Your task to perform on an android device: turn notification dots on Image 0: 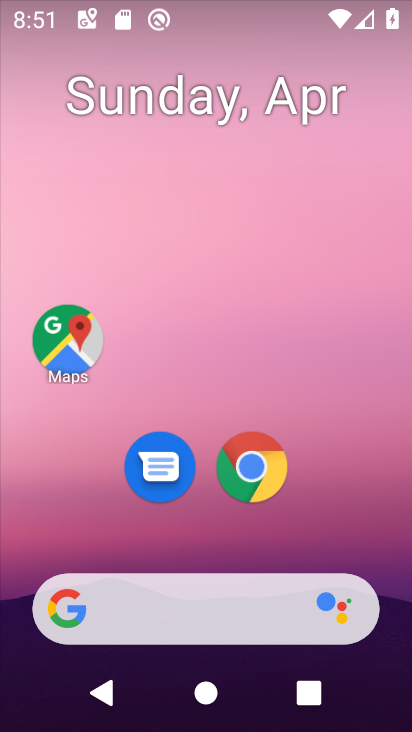
Step 0: drag from (333, 527) to (411, 40)
Your task to perform on an android device: turn notification dots on Image 1: 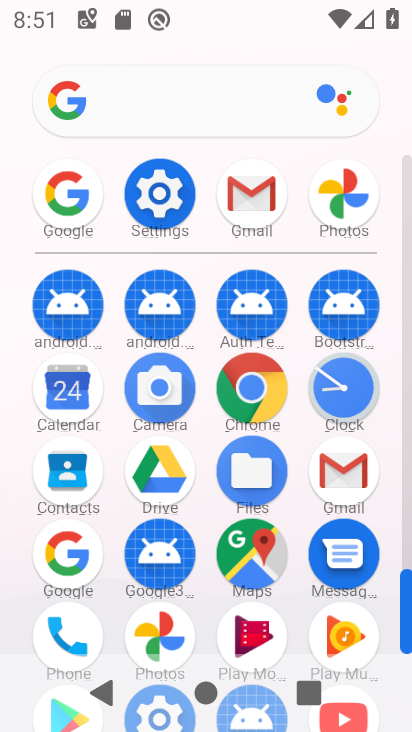
Step 1: click (150, 197)
Your task to perform on an android device: turn notification dots on Image 2: 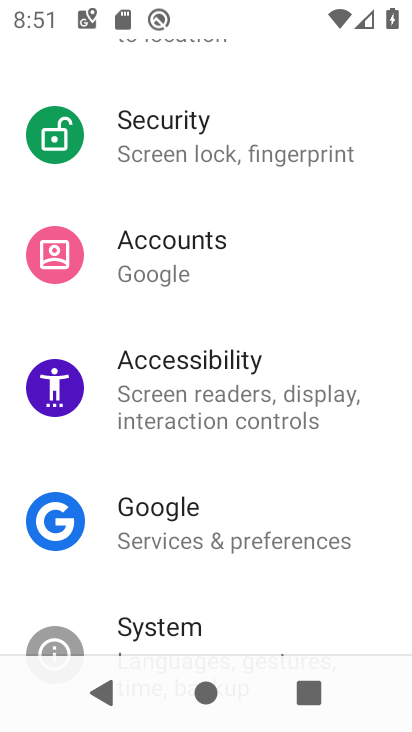
Step 2: drag from (227, 329) to (268, 417)
Your task to perform on an android device: turn notification dots on Image 3: 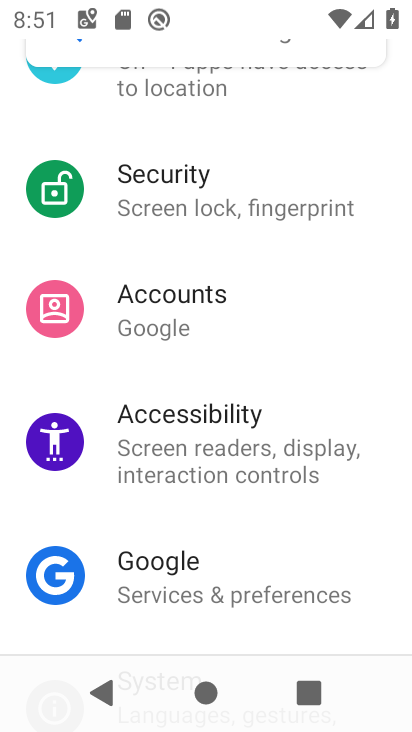
Step 3: drag from (306, 291) to (331, 370)
Your task to perform on an android device: turn notification dots on Image 4: 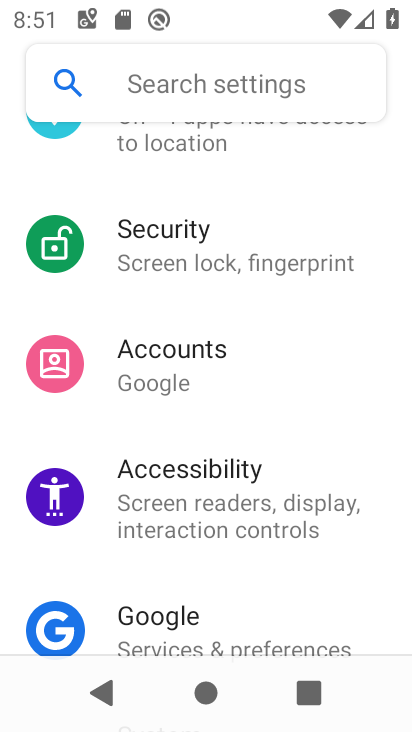
Step 4: drag from (322, 294) to (356, 385)
Your task to perform on an android device: turn notification dots on Image 5: 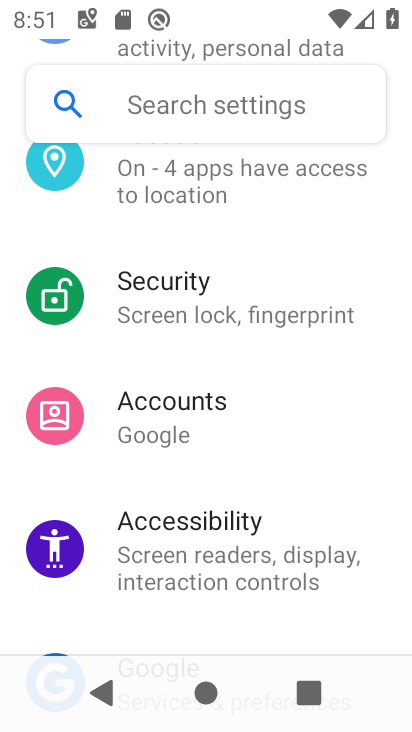
Step 5: drag from (337, 300) to (362, 385)
Your task to perform on an android device: turn notification dots on Image 6: 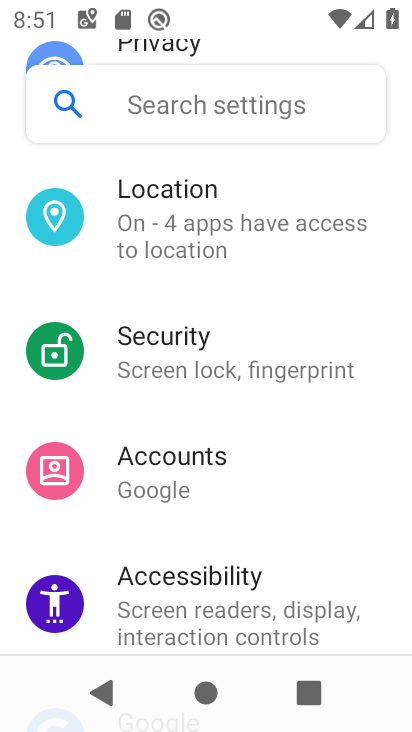
Step 6: drag from (356, 312) to (390, 398)
Your task to perform on an android device: turn notification dots on Image 7: 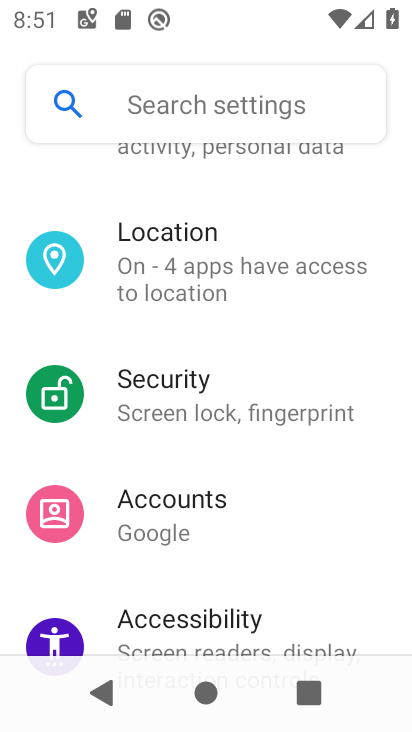
Step 7: drag from (354, 306) to (370, 371)
Your task to perform on an android device: turn notification dots on Image 8: 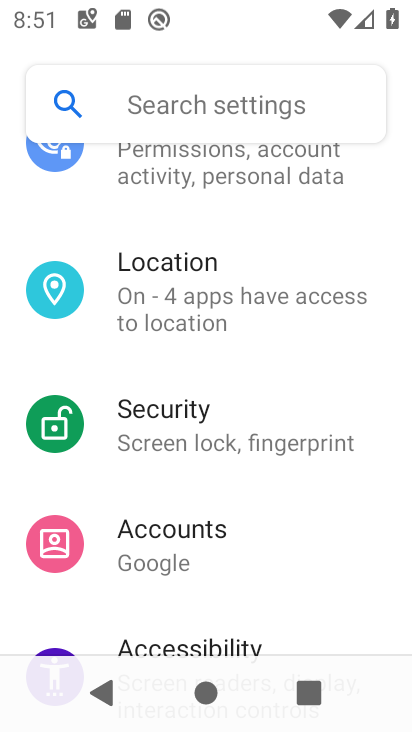
Step 8: drag from (361, 295) to (391, 378)
Your task to perform on an android device: turn notification dots on Image 9: 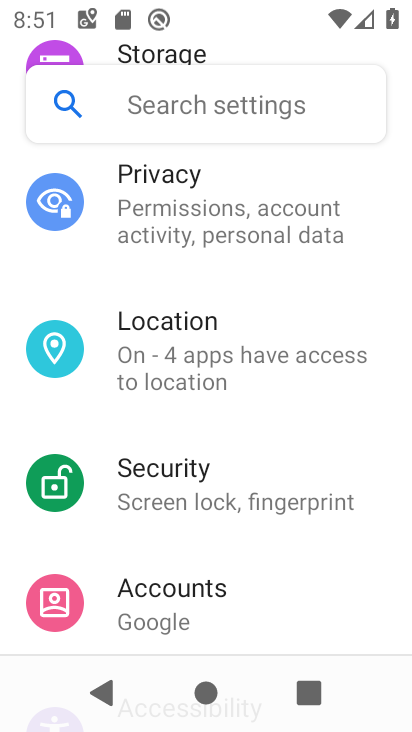
Step 9: drag from (371, 299) to (389, 363)
Your task to perform on an android device: turn notification dots on Image 10: 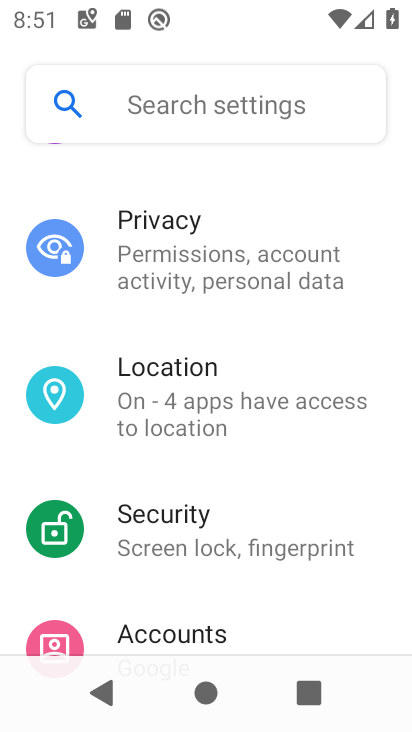
Step 10: drag from (360, 268) to (386, 350)
Your task to perform on an android device: turn notification dots on Image 11: 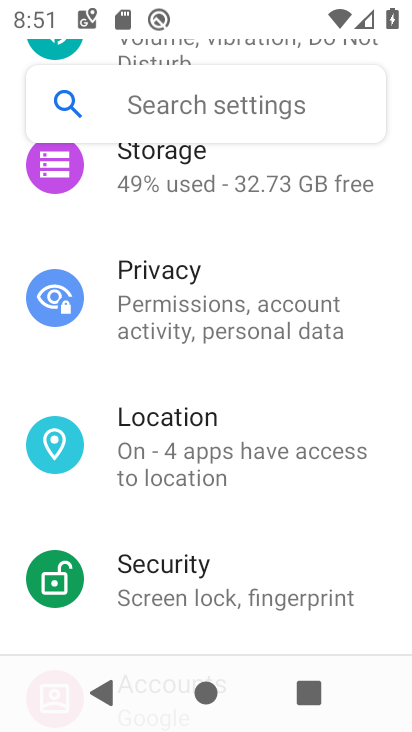
Step 11: drag from (370, 301) to (398, 388)
Your task to perform on an android device: turn notification dots on Image 12: 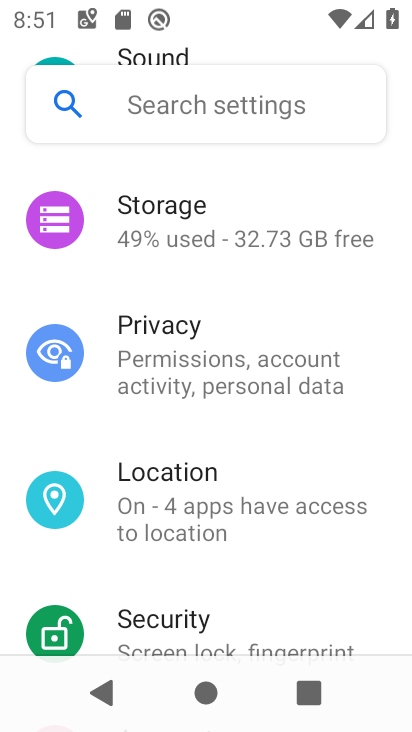
Step 12: drag from (339, 247) to (363, 331)
Your task to perform on an android device: turn notification dots on Image 13: 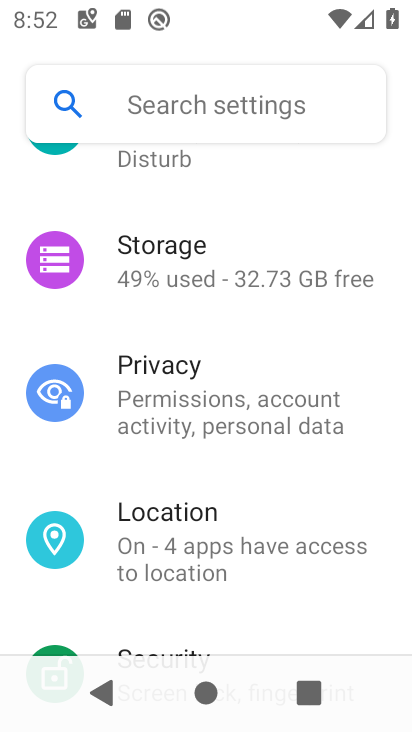
Step 13: drag from (332, 253) to (366, 346)
Your task to perform on an android device: turn notification dots on Image 14: 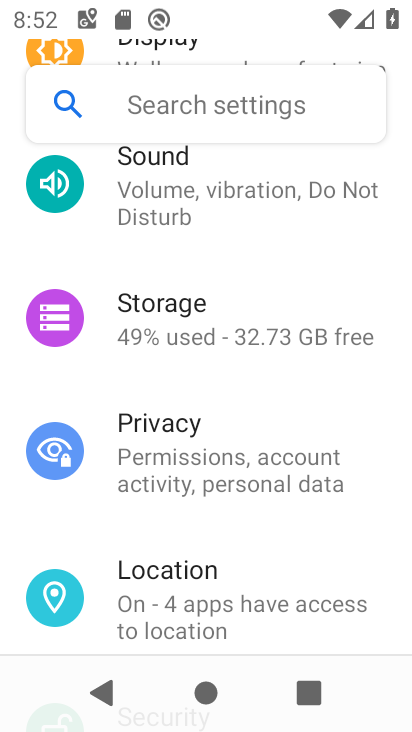
Step 14: drag from (332, 268) to (343, 330)
Your task to perform on an android device: turn notification dots on Image 15: 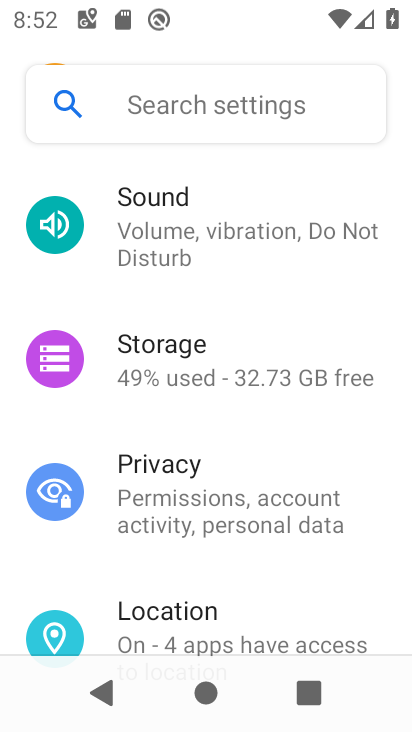
Step 15: drag from (328, 297) to (346, 344)
Your task to perform on an android device: turn notification dots on Image 16: 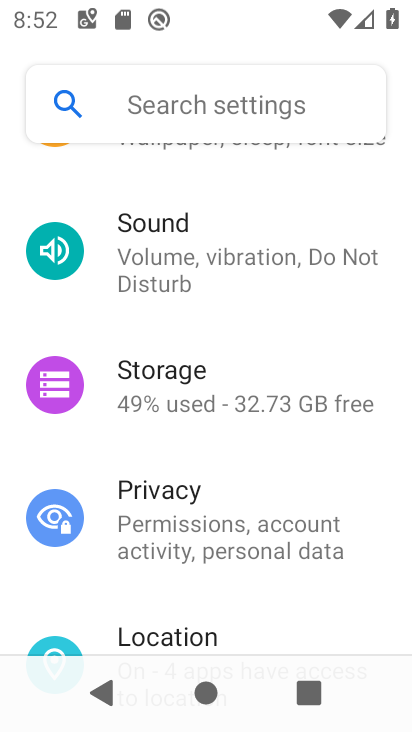
Step 16: drag from (330, 306) to (352, 373)
Your task to perform on an android device: turn notification dots on Image 17: 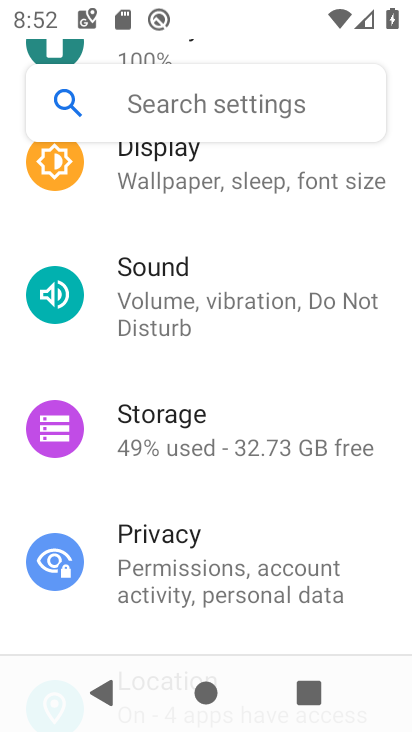
Step 17: drag from (334, 291) to (349, 376)
Your task to perform on an android device: turn notification dots on Image 18: 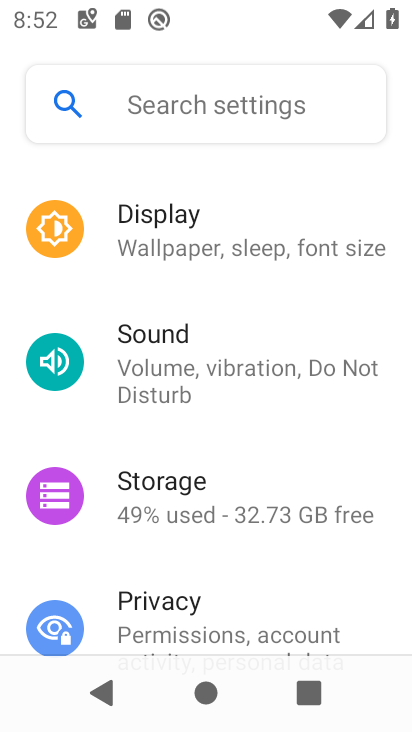
Step 18: drag from (274, 275) to (296, 343)
Your task to perform on an android device: turn notification dots on Image 19: 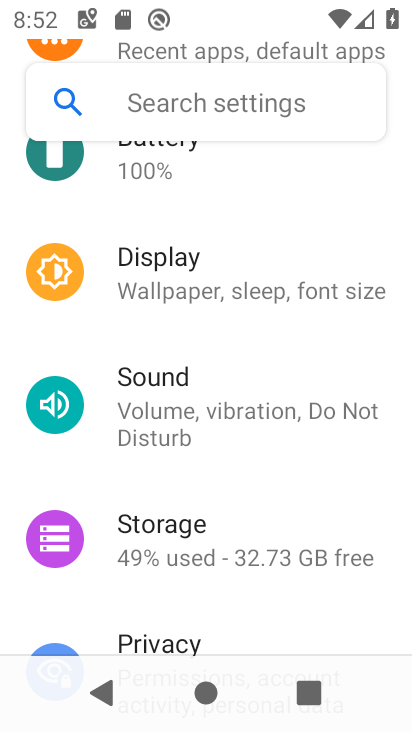
Step 19: drag from (272, 275) to (279, 328)
Your task to perform on an android device: turn notification dots on Image 20: 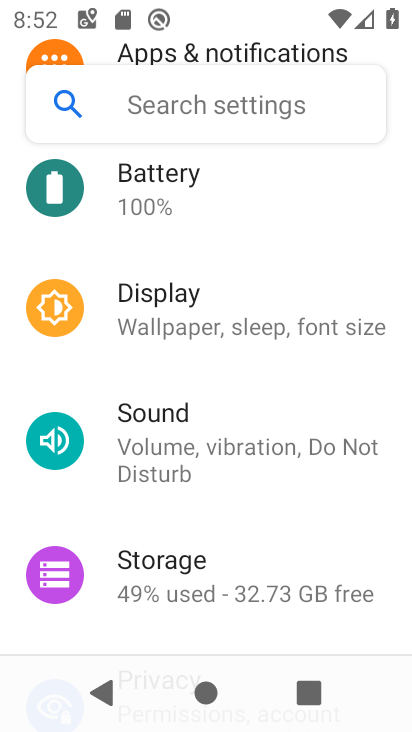
Step 20: drag from (270, 300) to (294, 357)
Your task to perform on an android device: turn notification dots on Image 21: 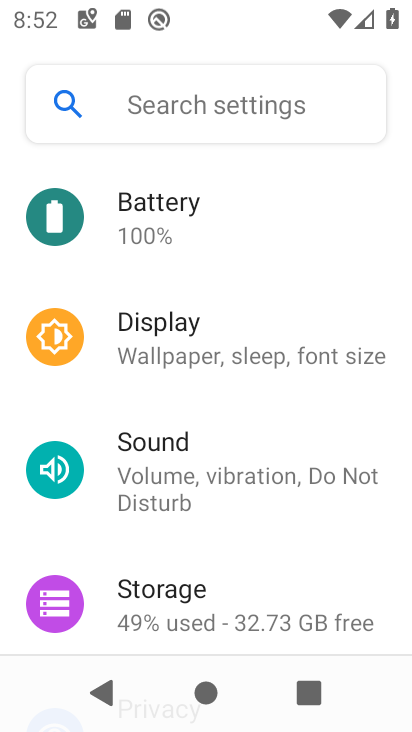
Step 21: drag from (277, 293) to (303, 424)
Your task to perform on an android device: turn notification dots on Image 22: 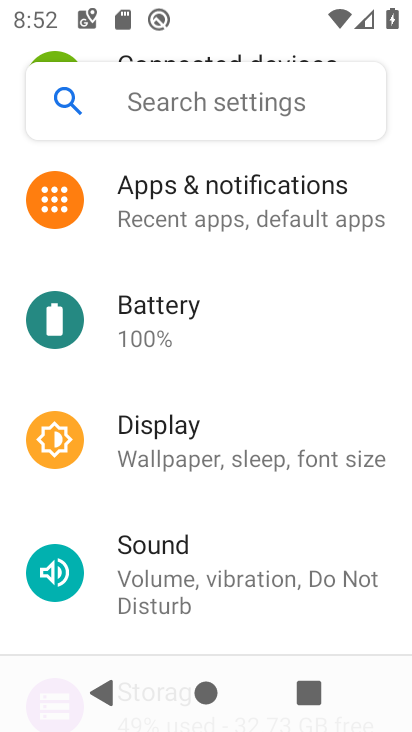
Step 22: click (289, 184)
Your task to perform on an android device: turn notification dots on Image 23: 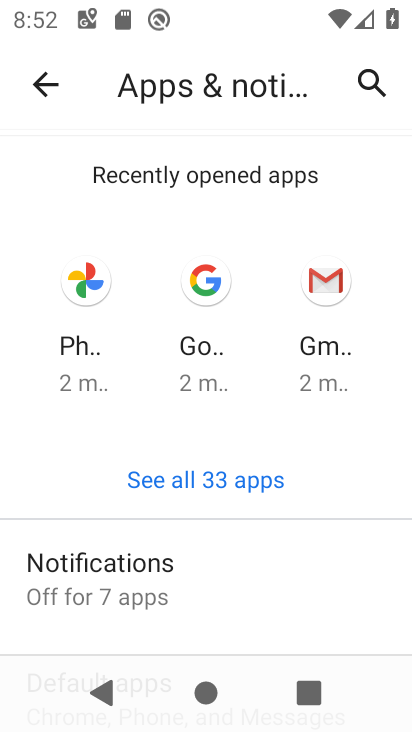
Step 23: drag from (236, 570) to (330, 282)
Your task to perform on an android device: turn notification dots on Image 24: 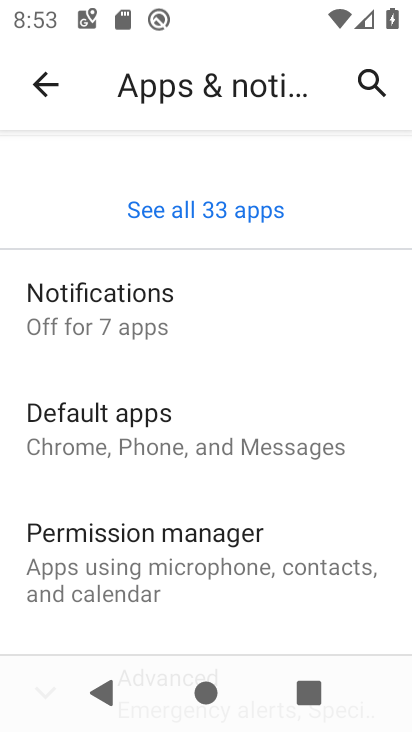
Step 24: click (256, 307)
Your task to perform on an android device: turn notification dots on Image 25: 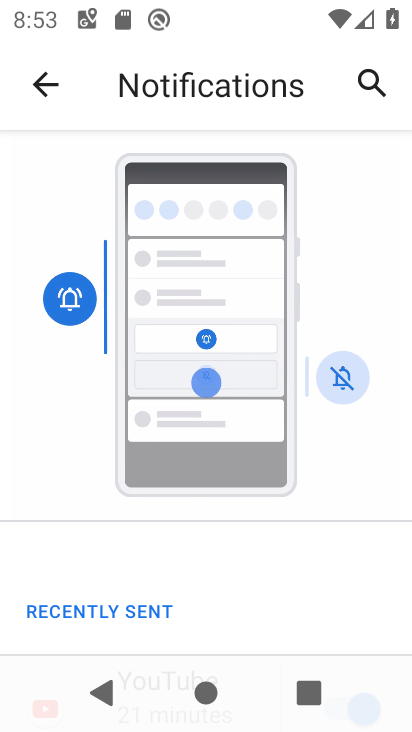
Step 25: drag from (251, 588) to (307, 395)
Your task to perform on an android device: turn notification dots on Image 26: 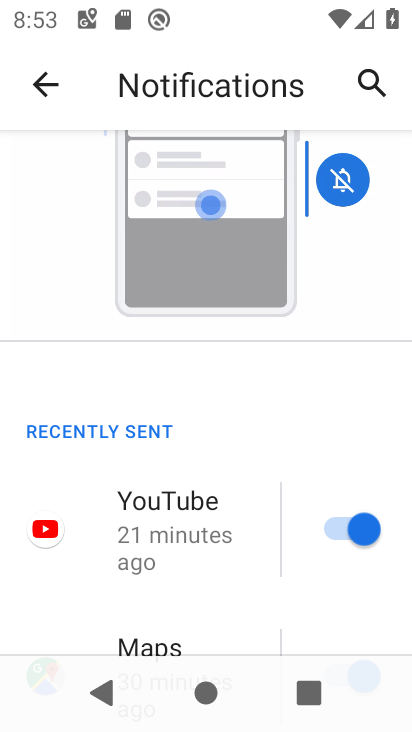
Step 26: drag from (237, 565) to (282, 418)
Your task to perform on an android device: turn notification dots on Image 27: 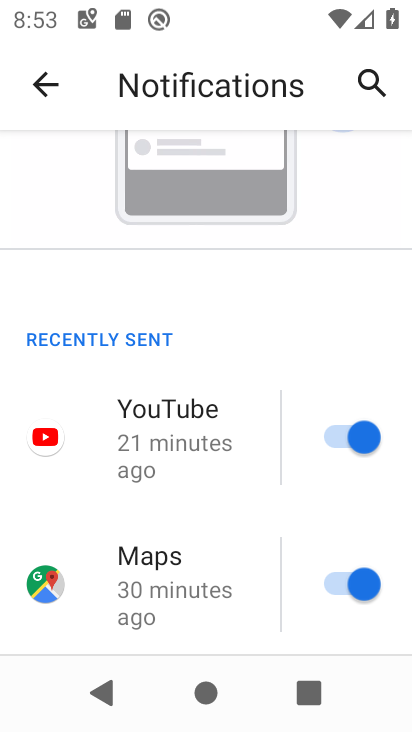
Step 27: drag from (231, 551) to (286, 396)
Your task to perform on an android device: turn notification dots on Image 28: 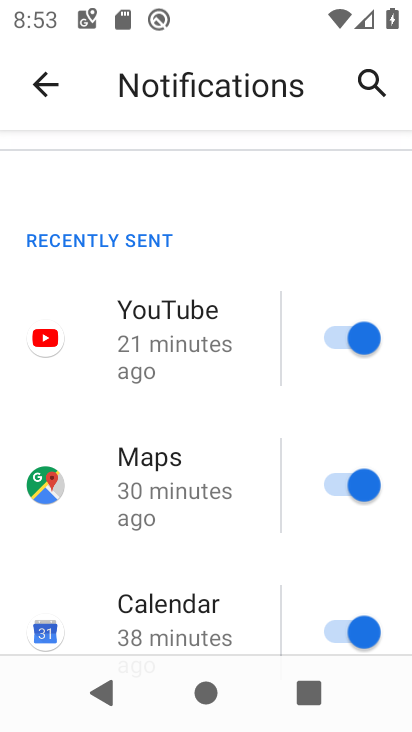
Step 28: drag from (241, 542) to (285, 404)
Your task to perform on an android device: turn notification dots on Image 29: 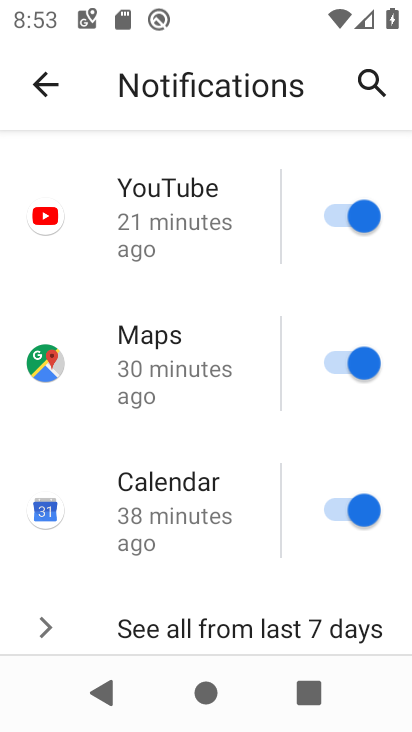
Step 29: drag from (219, 551) to (270, 340)
Your task to perform on an android device: turn notification dots on Image 30: 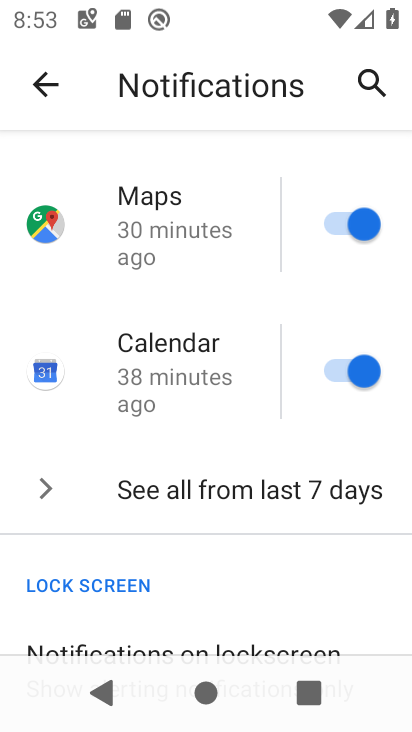
Step 30: drag from (209, 564) to (277, 283)
Your task to perform on an android device: turn notification dots on Image 31: 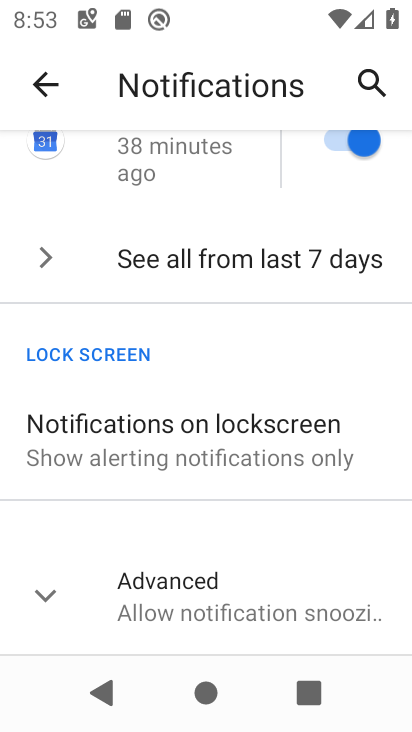
Step 31: click (192, 595)
Your task to perform on an android device: turn notification dots on Image 32: 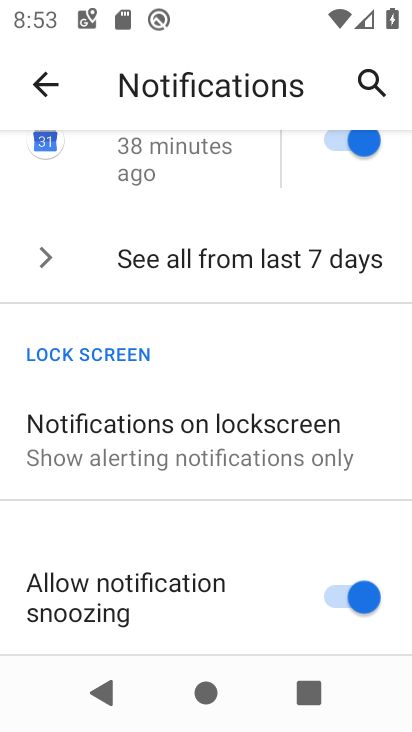
Step 32: task complete